Your task to perform on an android device: Search for "razer blade" on amazon, select the first entry, add it to the cart, then select checkout. Image 0: 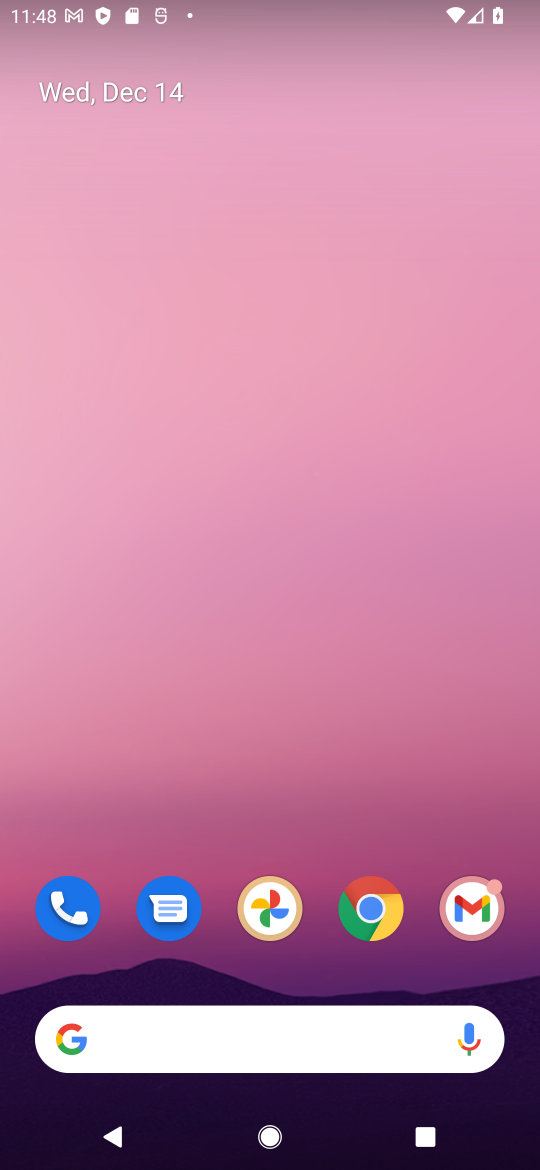
Step 0: click (367, 909)
Your task to perform on an android device: Search for "razer blade" on amazon, select the first entry, add it to the cart, then select checkout. Image 1: 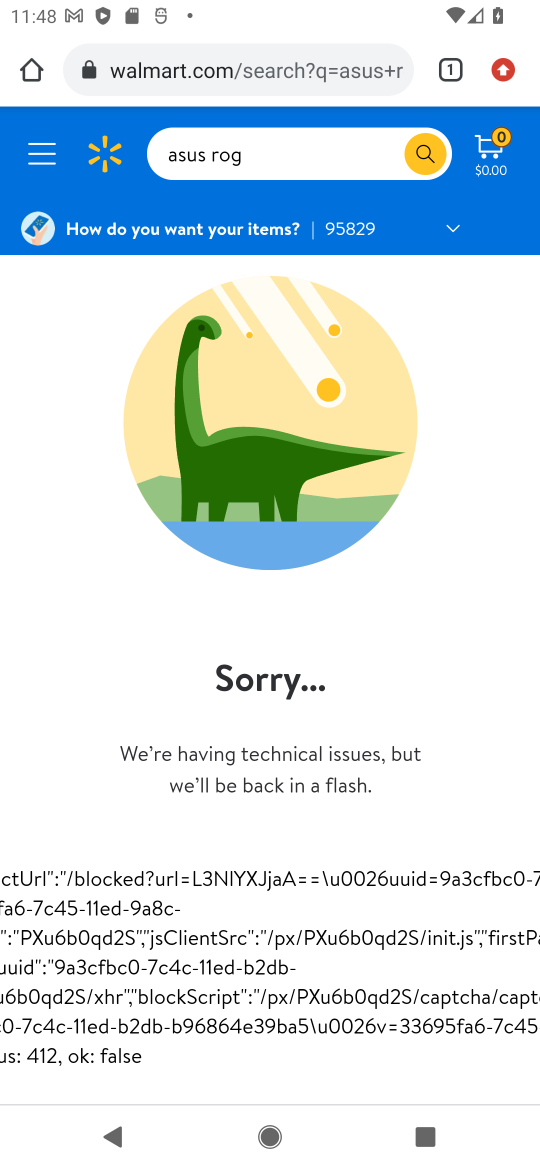
Step 1: click (215, 79)
Your task to perform on an android device: Search for "razer blade" on amazon, select the first entry, add it to the cart, then select checkout. Image 2: 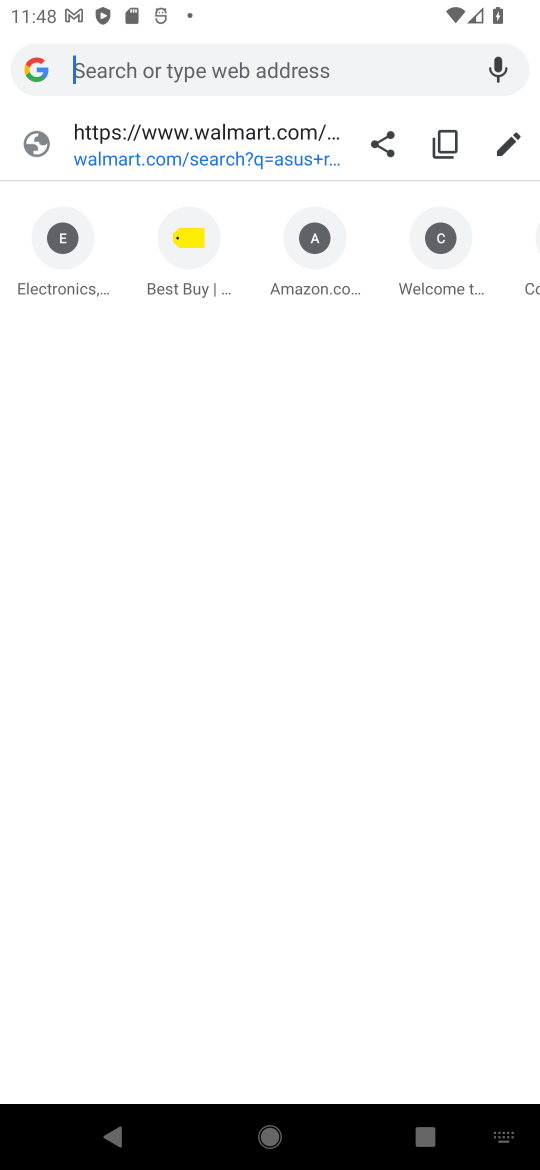
Step 2: click (311, 290)
Your task to perform on an android device: Search for "razer blade" on amazon, select the first entry, add it to the cart, then select checkout. Image 3: 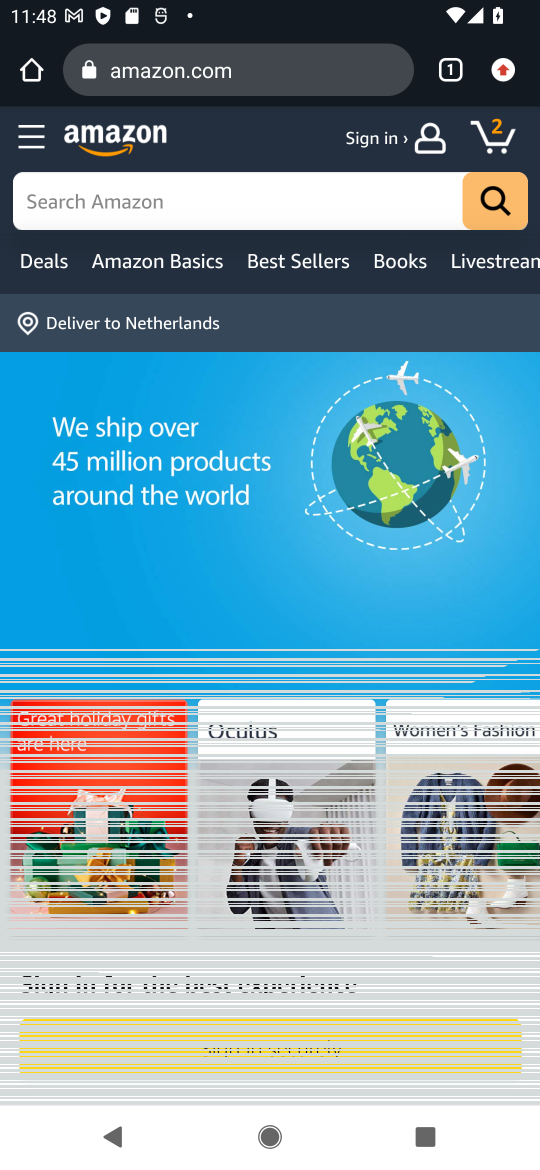
Step 3: click (74, 203)
Your task to perform on an android device: Search for "razer blade" on amazon, select the first entry, add it to the cart, then select checkout. Image 4: 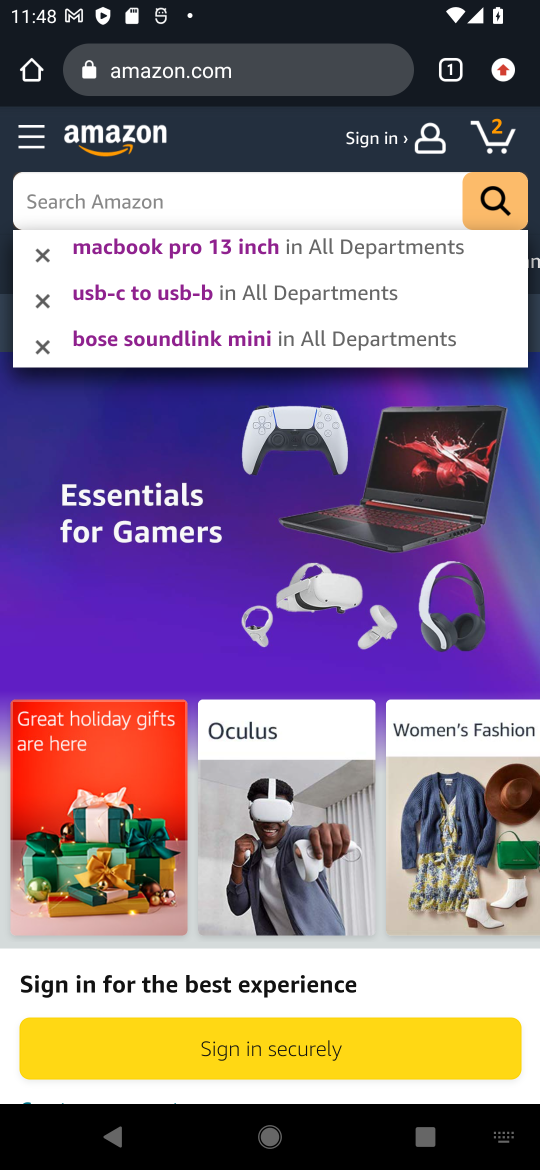
Step 4: type "razer blade"
Your task to perform on an android device: Search for "razer blade" on amazon, select the first entry, add it to the cart, then select checkout. Image 5: 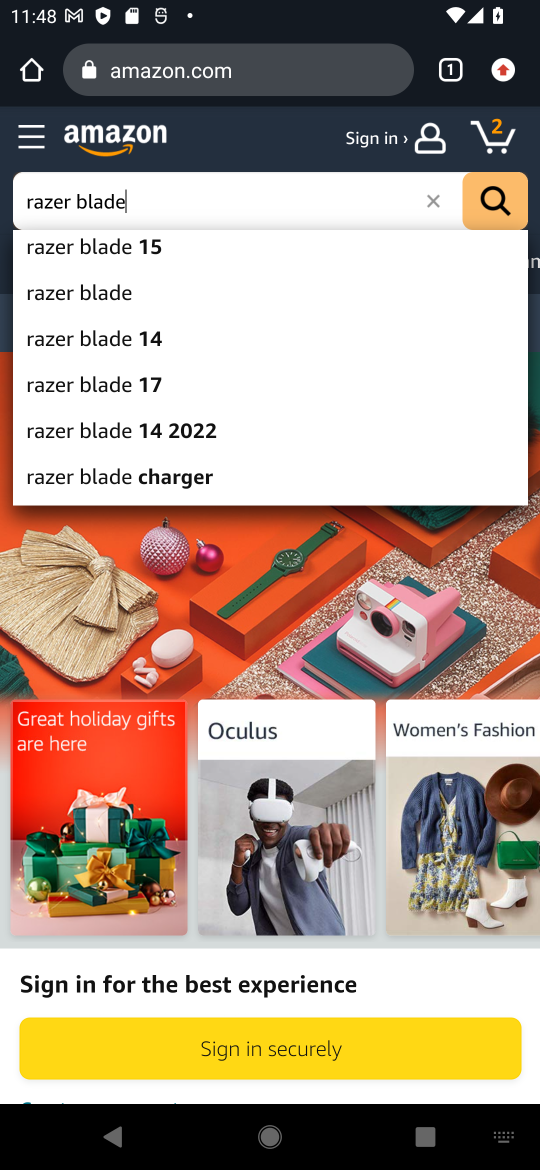
Step 5: click (108, 304)
Your task to perform on an android device: Search for "razer blade" on amazon, select the first entry, add it to the cart, then select checkout. Image 6: 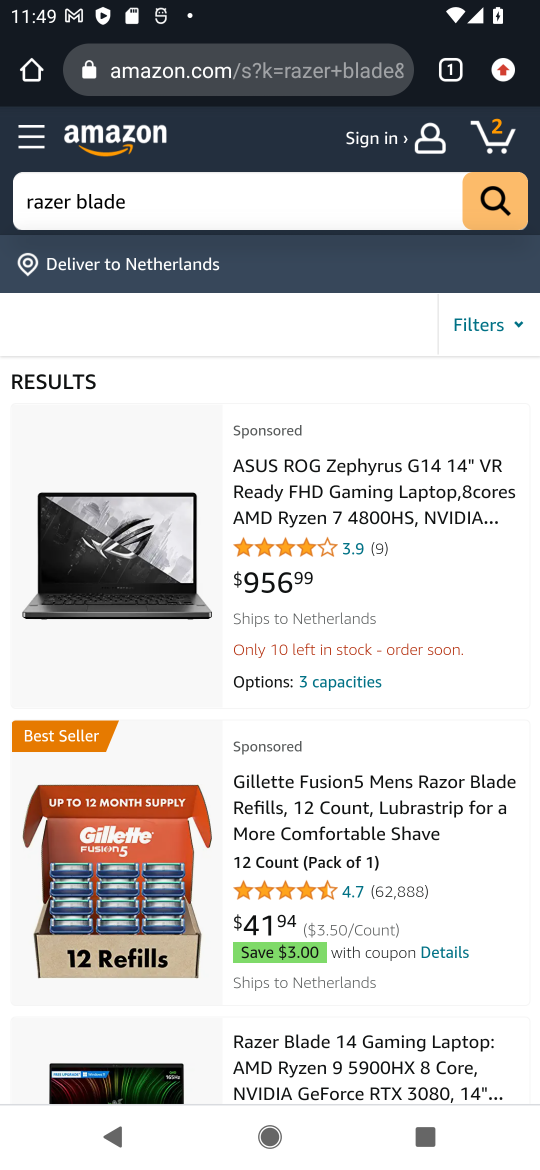
Step 6: task complete